Your task to perform on an android device: Open Wikipedia Image 0: 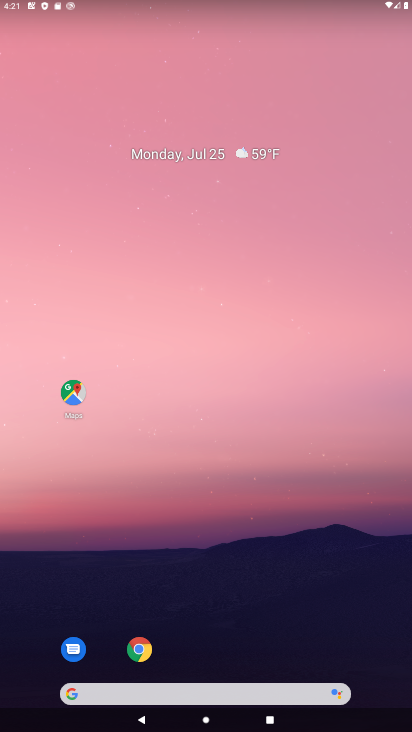
Step 0: drag from (293, 583) to (354, 15)
Your task to perform on an android device: Open Wikipedia Image 1: 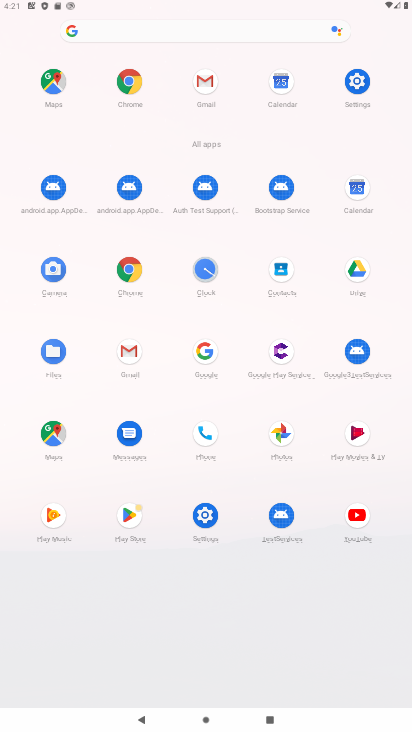
Step 1: click (122, 105)
Your task to perform on an android device: Open Wikipedia Image 2: 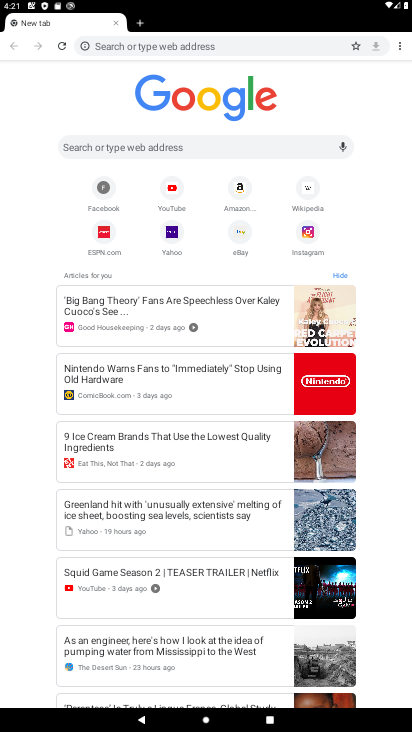
Step 2: click (303, 193)
Your task to perform on an android device: Open Wikipedia Image 3: 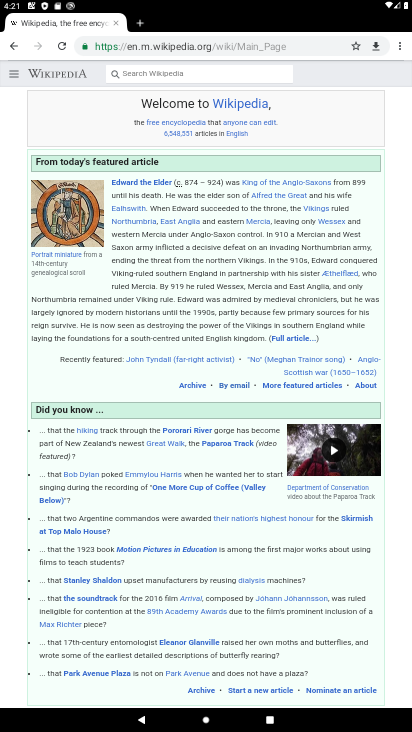
Step 3: task complete